Your task to perform on an android device: show emergency info Image 0: 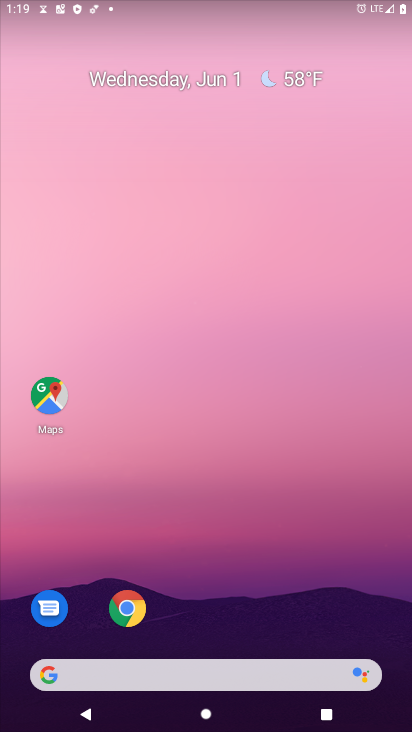
Step 0: drag from (211, 499) to (196, 123)
Your task to perform on an android device: show emergency info Image 1: 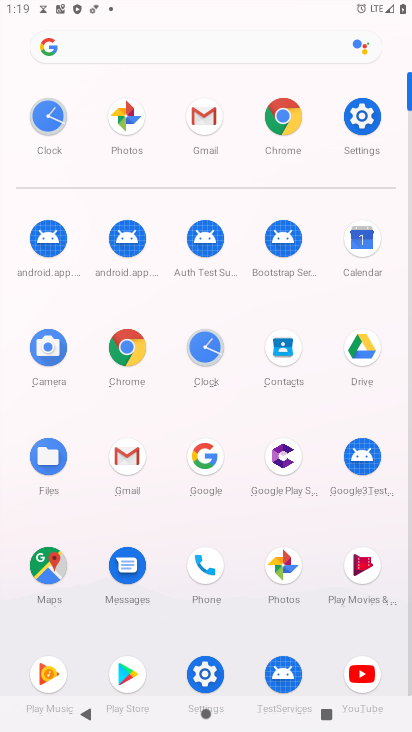
Step 1: click (353, 114)
Your task to perform on an android device: show emergency info Image 2: 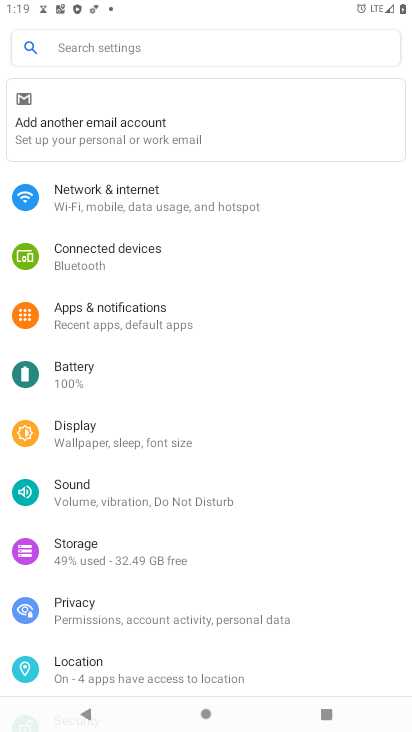
Step 2: drag from (214, 611) to (231, 121)
Your task to perform on an android device: show emergency info Image 3: 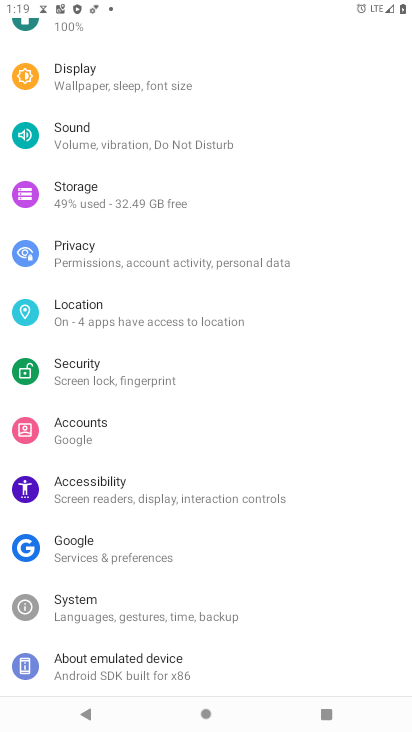
Step 3: click (78, 653)
Your task to perform on an android device: show emergency info Image 4: 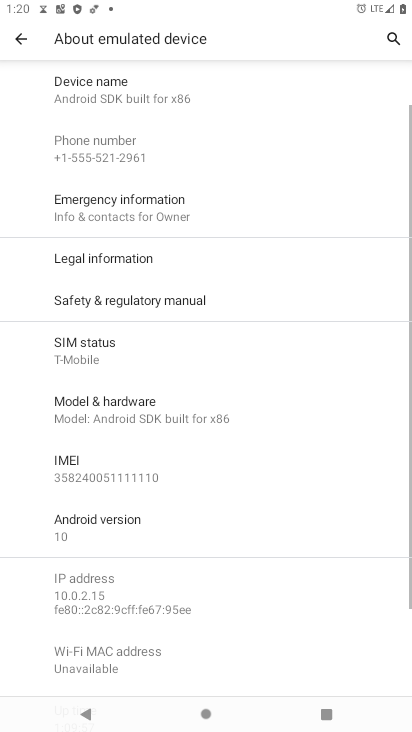
Step 4: click (108, 201)
Your task to perform on an android device: show emergency info Image 5: 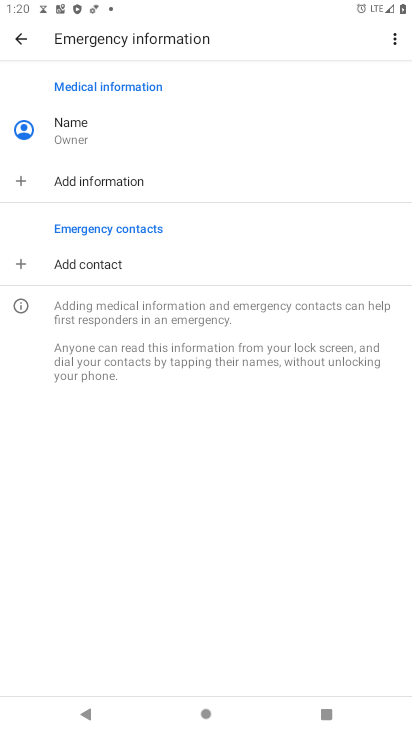
Step 5: task complete